Your task to perform on an android device: Open the web browser Image 0: 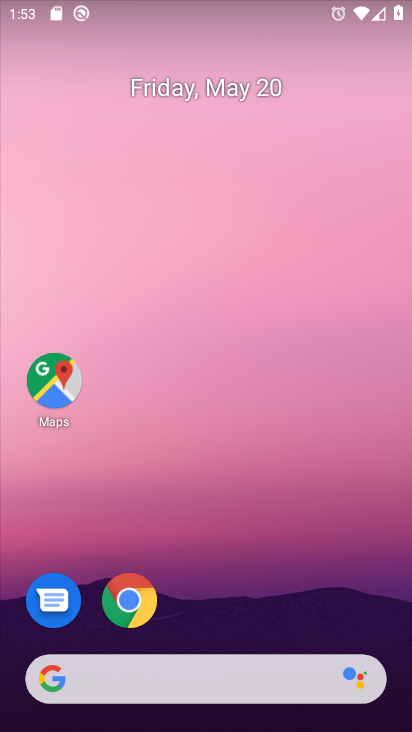
Step 0: drag from (233, 640) to (306, 140)
Your task to perform on an android device: Open the web browser Image 1: 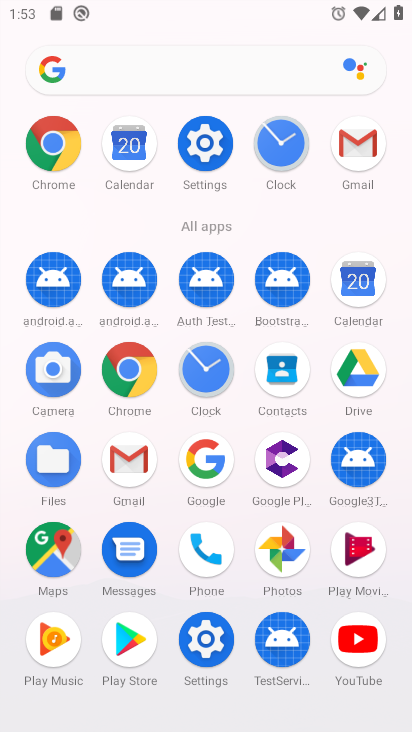
Step 1: click (136, 385)
Your task to perform on an android device: Open the web browser Image 2: 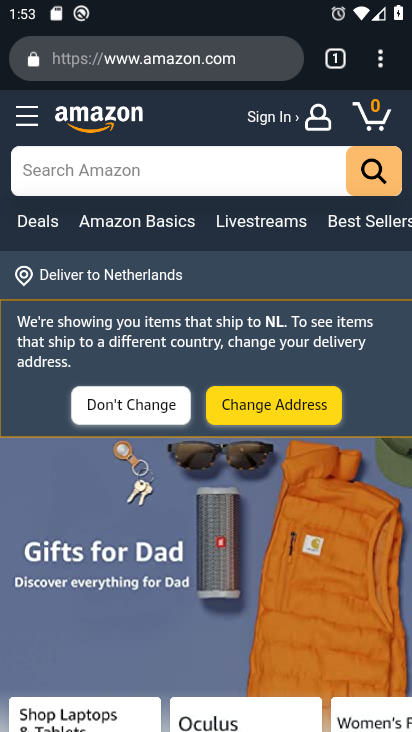
Step 2: task complete